Your task to perform on an android device: open app "Fetch Rewards" Image 0: 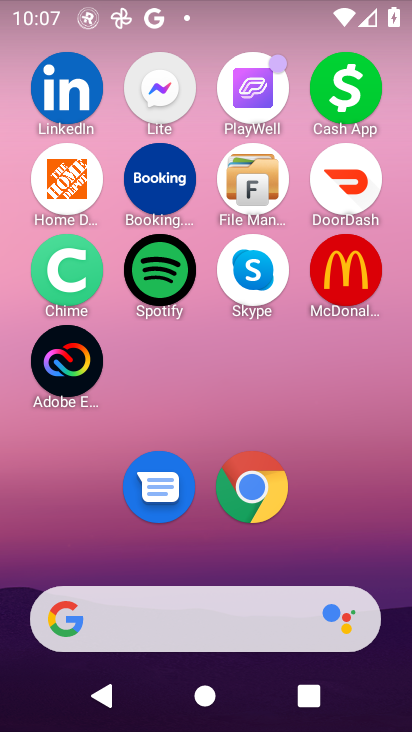
Step 0: press back button
Your task to perform on an android device: open app "Fetch Rewards" Image 1: 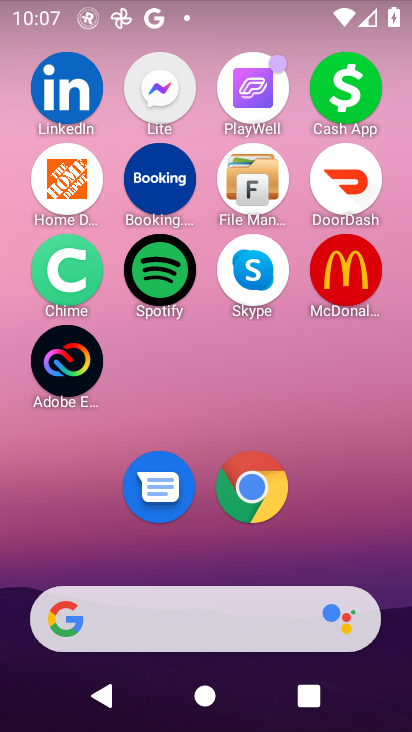
Step 1: drag from (307, 399) to (274, 168)
Your task to perform on an android device: open app "Fetch Rewards" Image 2: 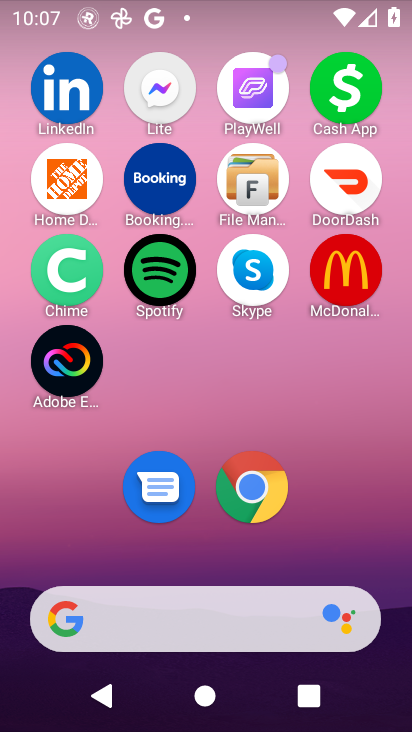
Step 2: drag from (329, 532) to (238, 197)
Your task to perform on an android device: open app "Fetch Rewards" Image 3: 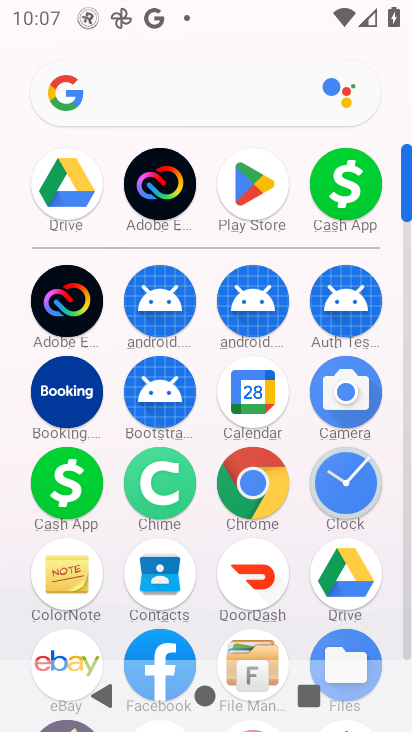
Step 3: click (253, 190)
Your task to perform on an android device: open app "Fetch Rewards" Image 4: 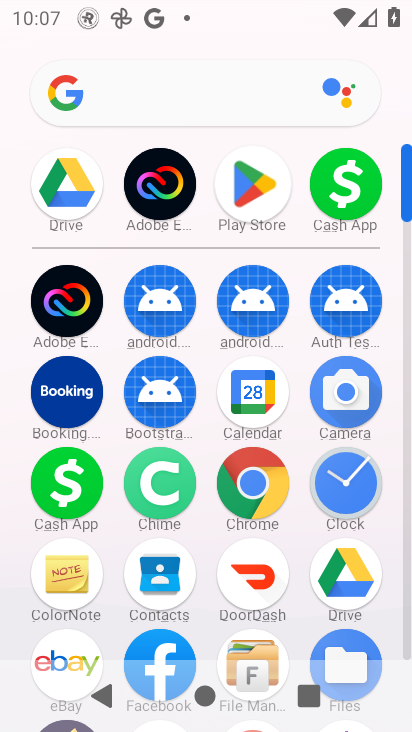
Step 4: click (252, 191)
Your task to perform on an android device: open app "Fetch Rewards" Image 5: 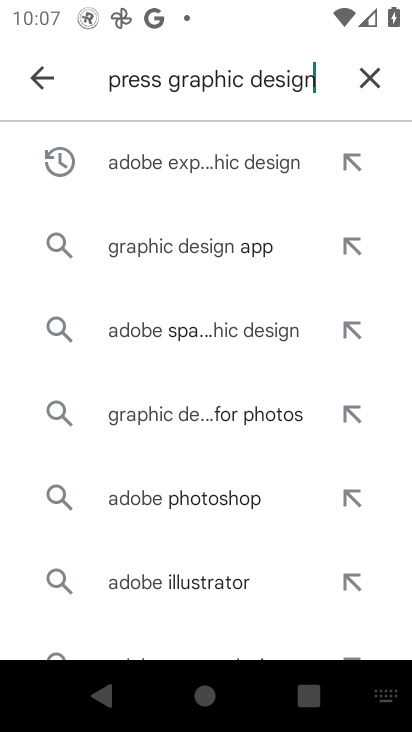
Step 5: click (38, 78)
Your task to perform on an android device: open app "Fetch Rewards" Image 6: 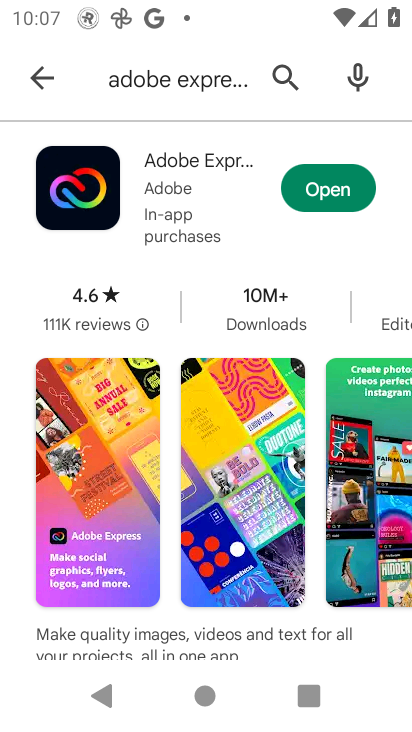
Step 6: click (43, 73)
Your task to perform on an android device: open app "Fetch Rewards" Image 7: 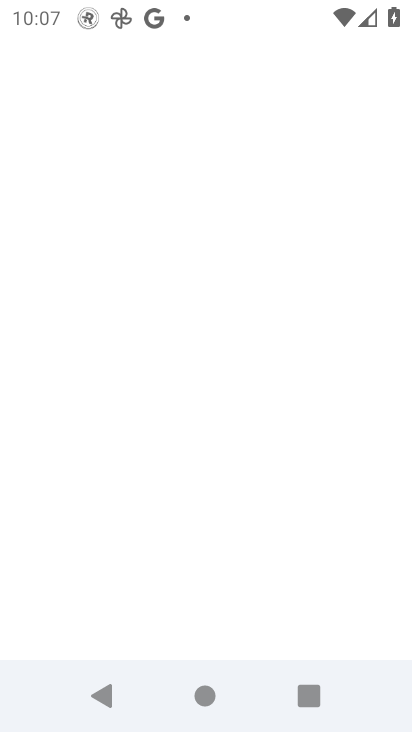
Step 7: click (43, 73)
Your task to perform on an android device: open app "Fetch Rewards" Image 8: 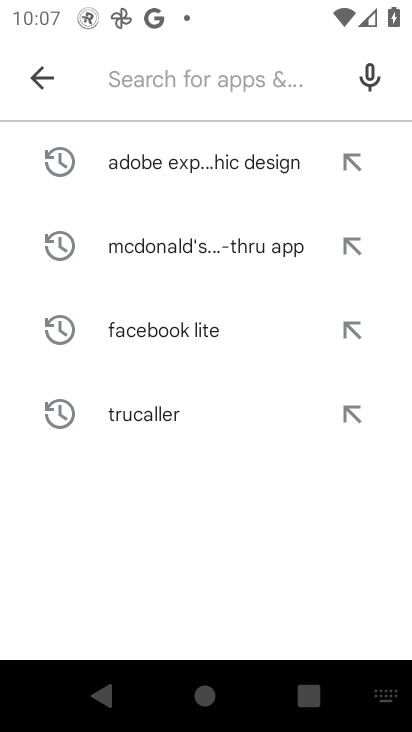
Step 8: click (131, 78)
Your task to perform on an android device: open app "Fetch Rewards" Image 9: 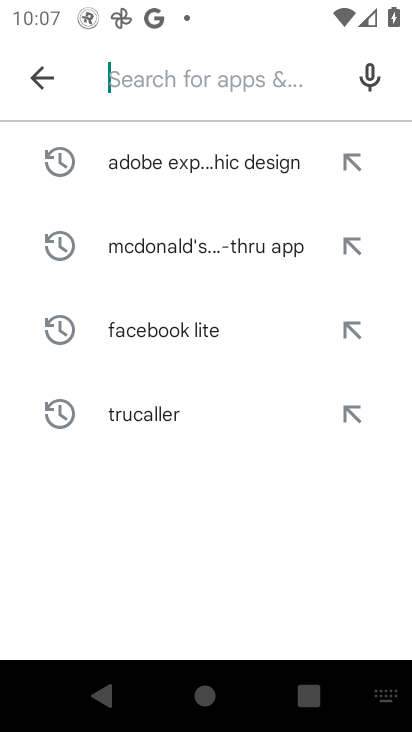
Step 9: type "fetch rewards"
Your task to perform on an android device: open app "Fetch Rewards" Image 10: 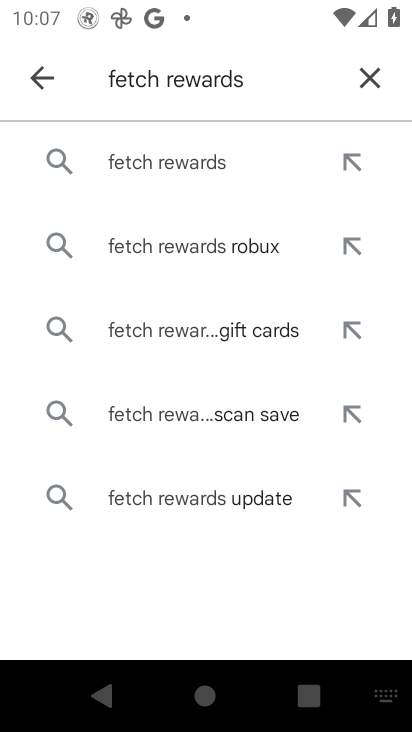
Step 10: click (200, 155)
Your task to perform on an android device: open app "Fetch Rewards" Image 11: 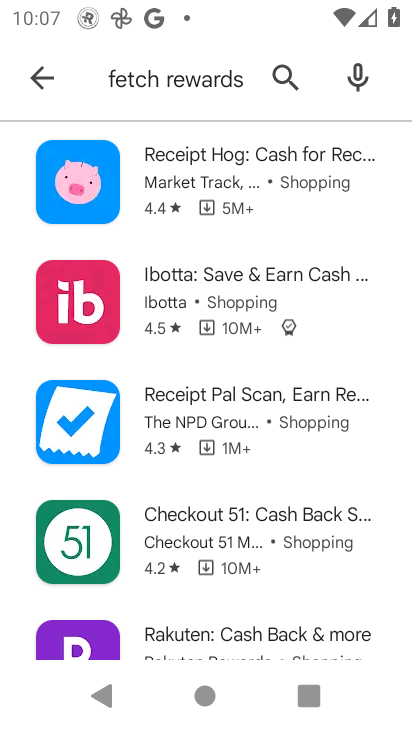
Step 11: task complete